Your task to perform on an android device: Go to Amazon Image 0: 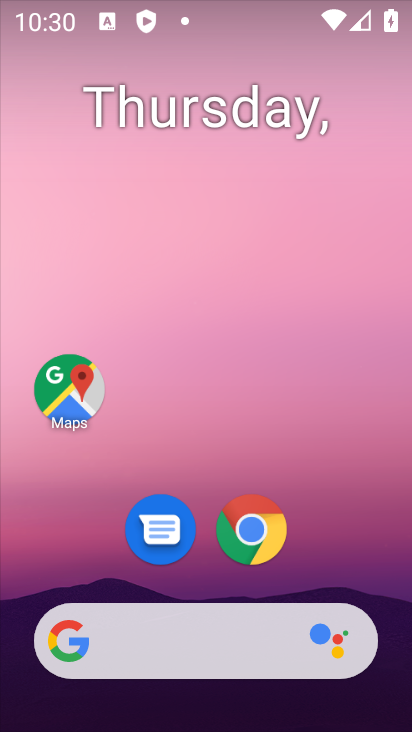
Step 0: drag from (210, 594) to (282, 108)
Your task to perform on an android device: Go to Amazon Image 1: 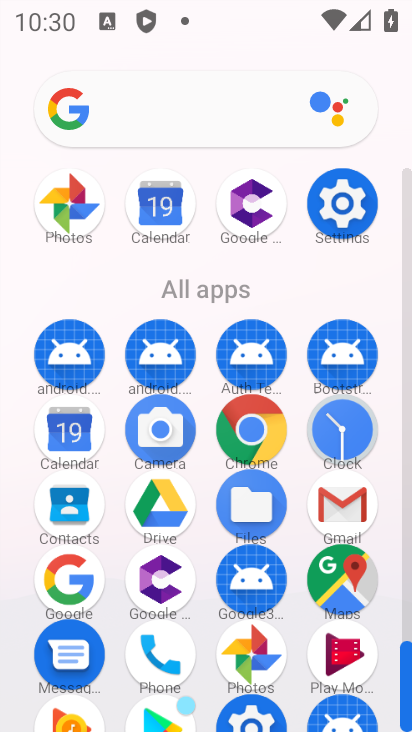
Step 1: click (265, 450)
Your task to perform on an android device: Go to Amazon Image 2: 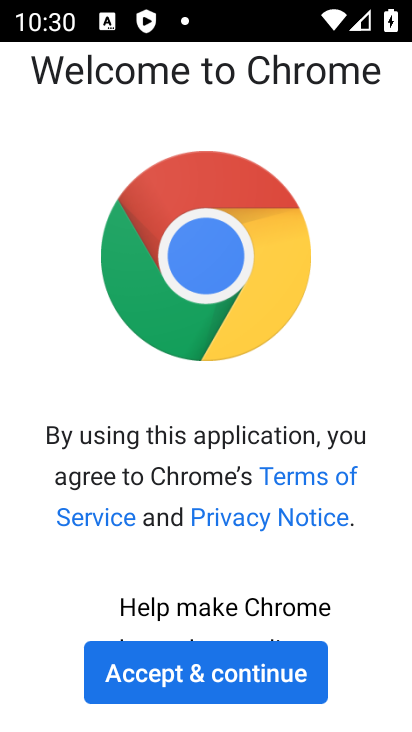
Step 2: click (247, 688)
Your task to perform on an android device: Go to Amazon Image 3: 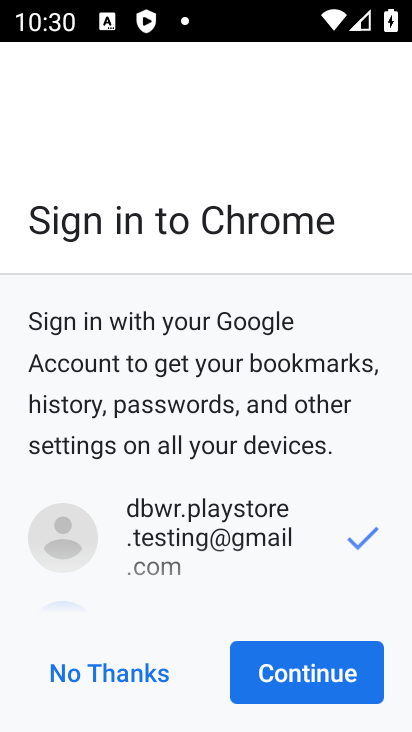
Step 3: click (325, 678)
Your task to perform on an android device: Go to Amazon Image 4: 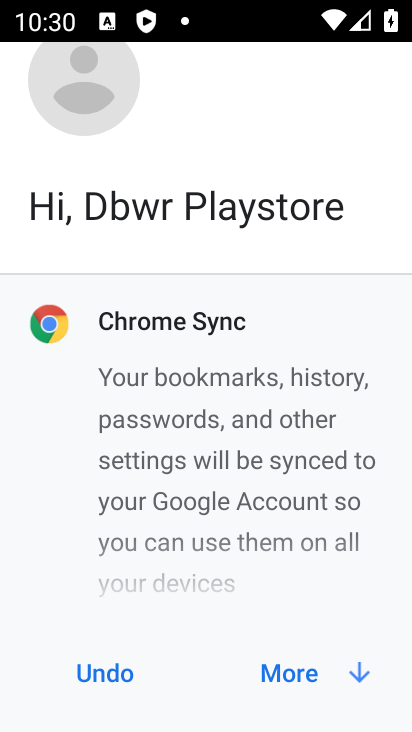
Step 4: click (310, 678)
Your task to perform on an android device: Go to Amazon Image 5: 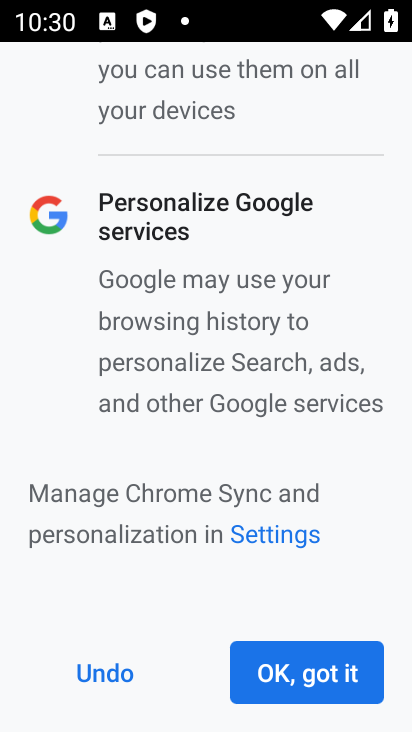
Step 5: click (305, 658)
Your task to perform on an android device: Go to Amazon Image 6: 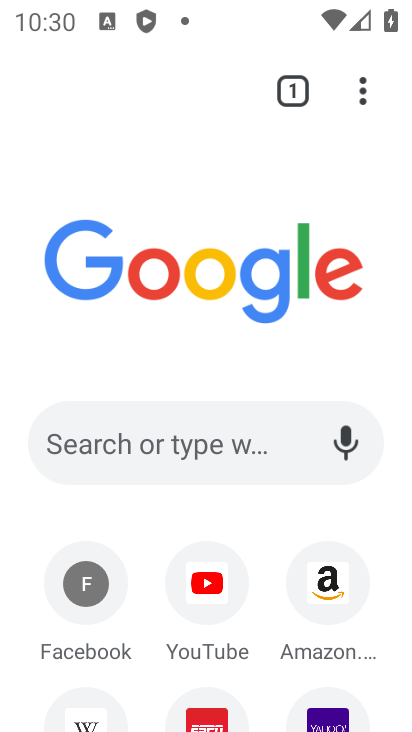
Step 6: drag from (235, 549) to (248, 294)
Your task to perform on an android device: Go to Amazon Image 7: 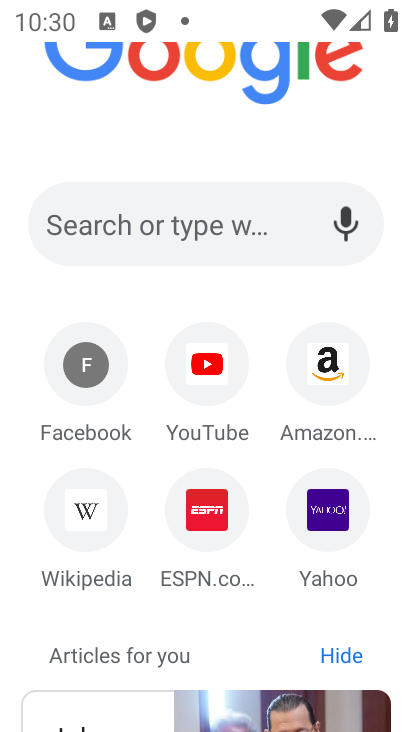
Step 7: click (323, 396)
Your task to perform on an android device: Go to Amazon Image 8: 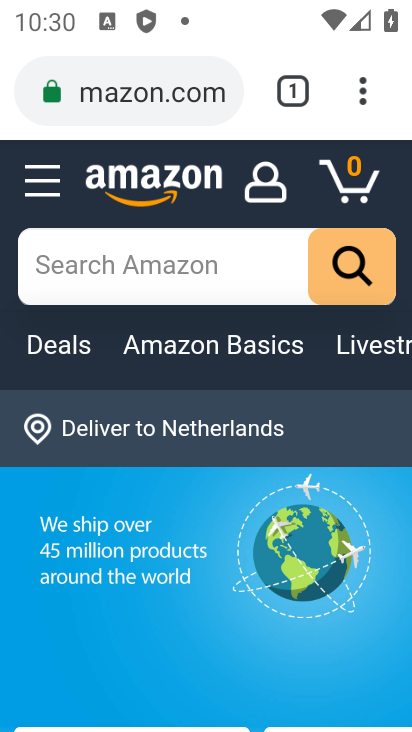
Step 8: task complete